Your task to perform on an android device: Open calendar and show me the first week of next month Image 0: 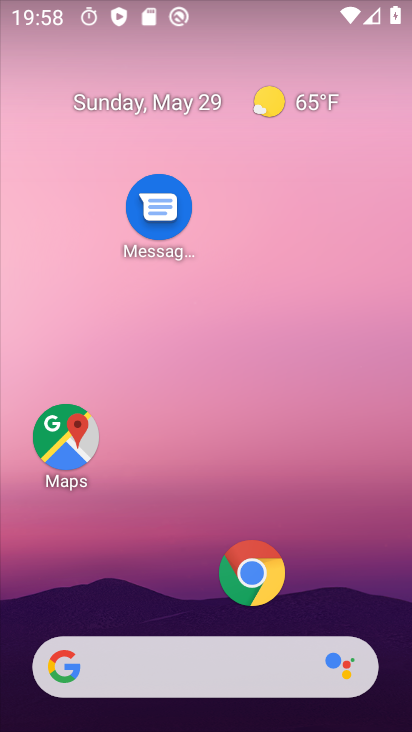
Step 0: drag from (166, 607) to (214, 249)
Your task to perform on an android device: Open calendar and show me the first week of next month Image 1: 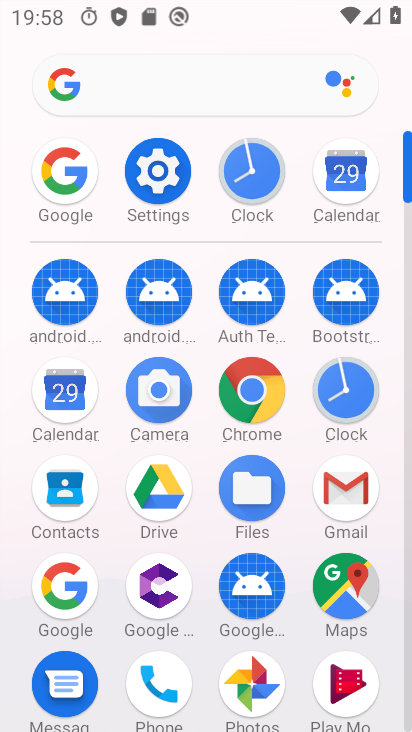
Step 1: click (346, 184)
Your task to perform on an android device: Open calendar and show me the first week of next month Image 2: 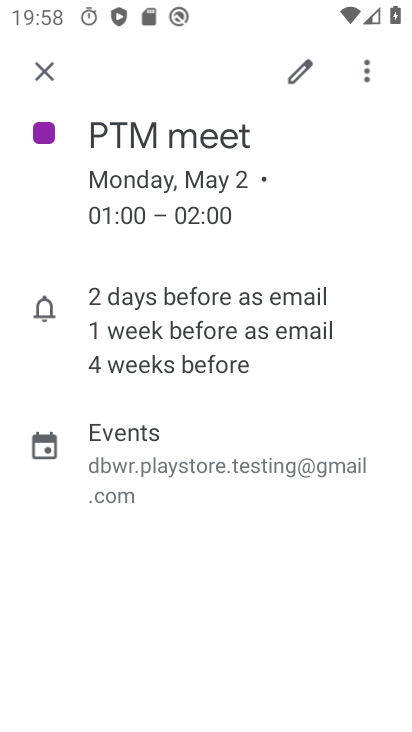
Step 2: click (50, 72)
Your task to perform on an android device: Open calendar and show me the first week of next month Image 3: 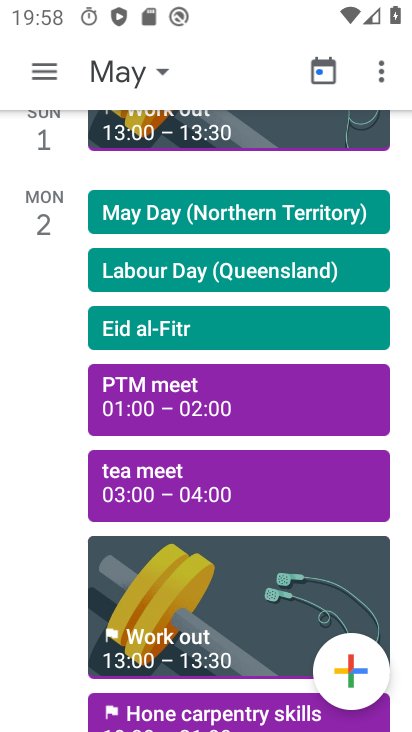
Step 3: click (152, 55)
Your task to perform on an android device: Open calendar and show me the first week of next month Image 4: 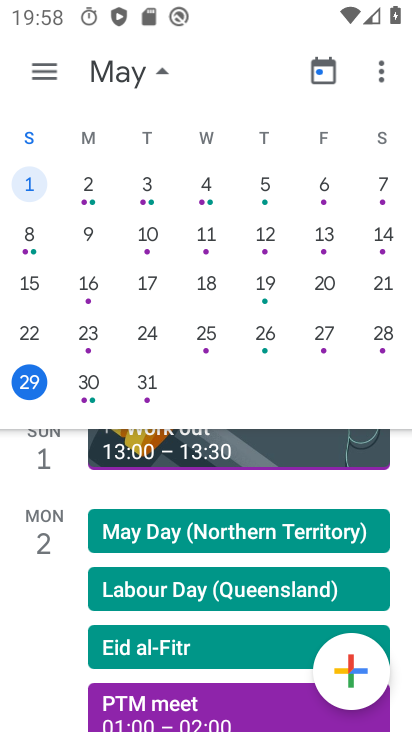
Step 4: drag from (339, 223) to (81, 238)
Your task to perform on an android device: Open calendar and show me the first week of next month Image 5: 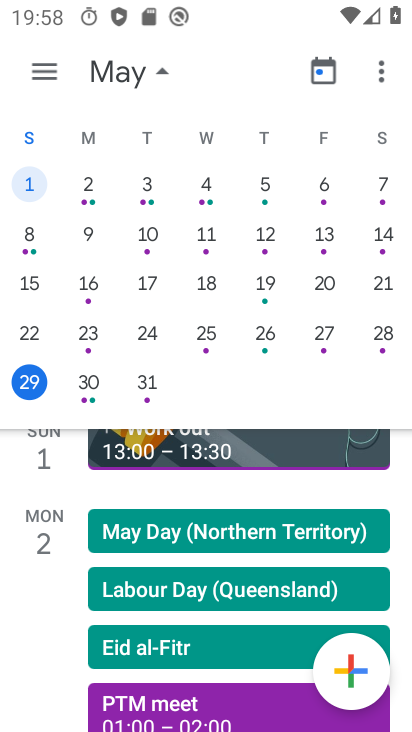
Step 5: drag from (339, 248) to (23, 275)
Your task to perform on an android device: Open calendar and show me the first week of next month Image 6: 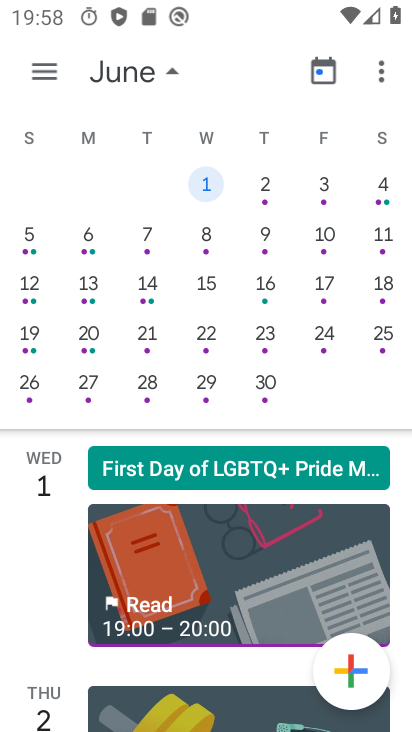
Step 6: click (211, 190)
Your task to perform on an android device: Open calendar and show me the first week of next month Image 7: 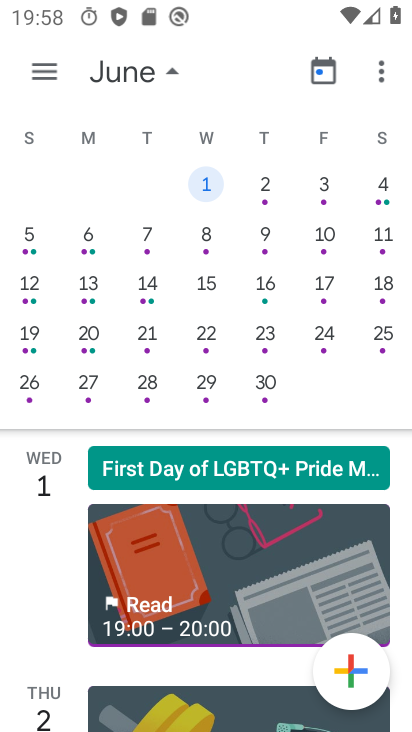
Step 7: task complete